Your task to perform on an android device: Open the stopwatch Image 0: 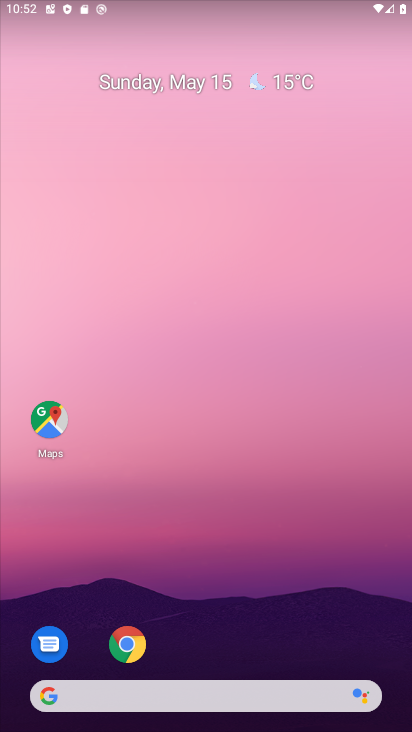
Step 0: drag from (249, 549) to (273, 116)
Your task to perform on an android device: Open the stopwatch Image 1: 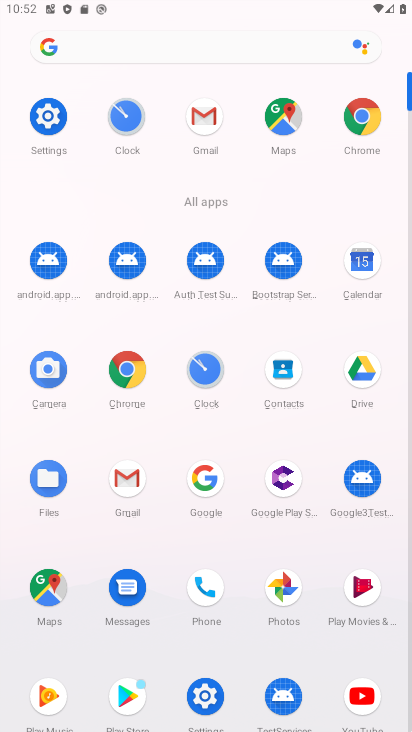
Step 1: click (123, 105)
Your task to perform on an android device: Open the stopwatch Image 2: 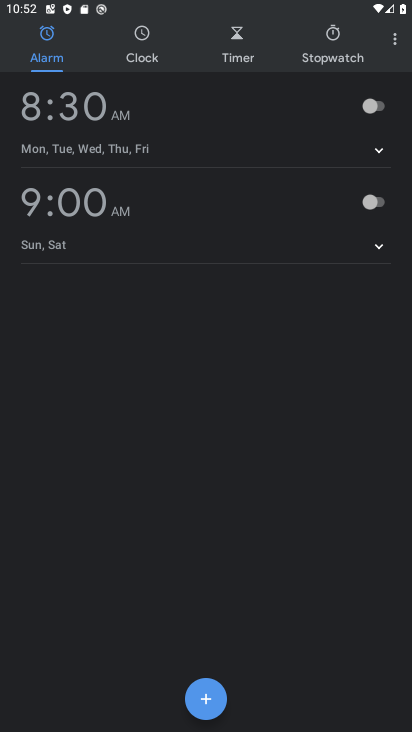
Step 2: click (327, 53)
Your task to perform on an android device: Open the stopwatch Image 3: 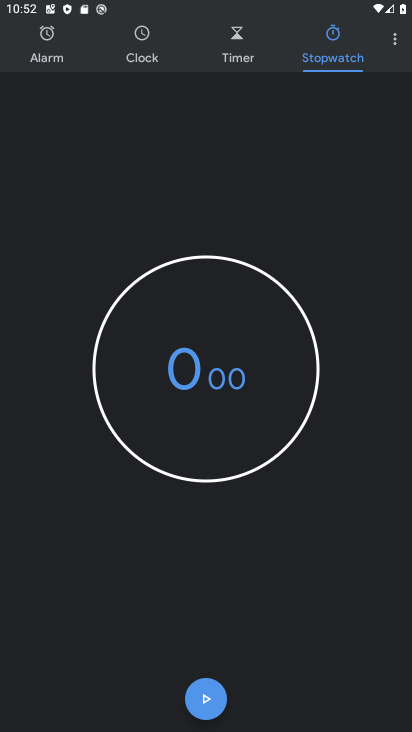
Step 3: task complete